Your task to perform on an android device: Open network settings Image 0: 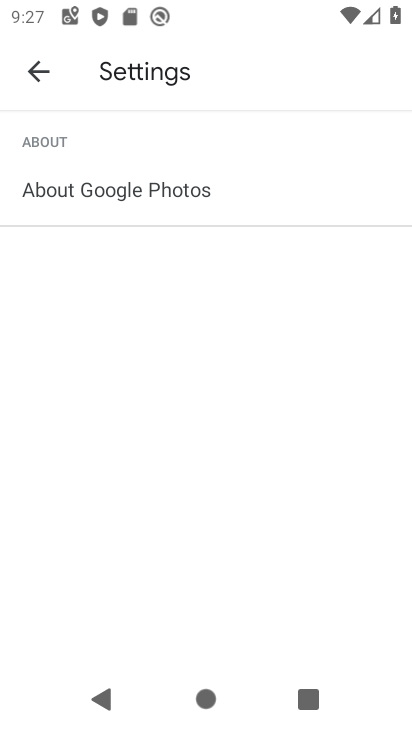
Step 0: press home button
Your task to perform on an android device: Open network settings Image 1: 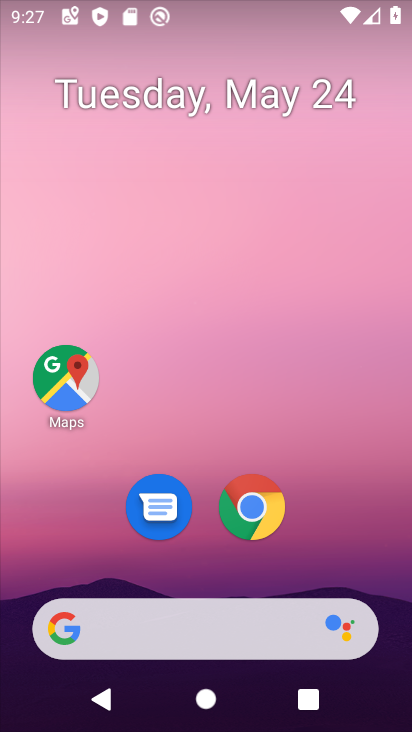
Step 1: drag from (60, 565) to (184, 145)
Your task to perform on an android device: Open network settings Image 2: 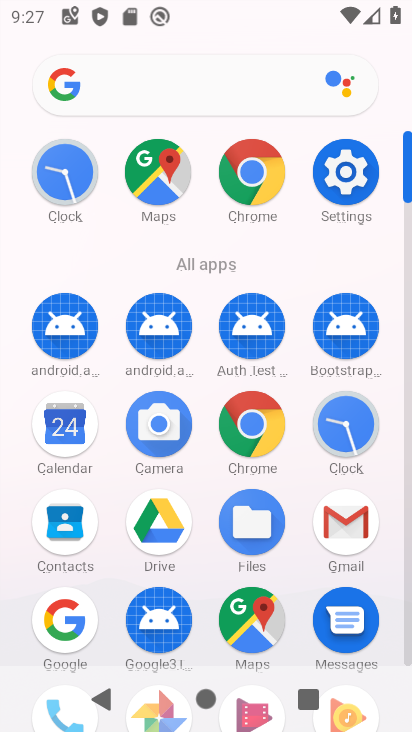
Step 2: drag from (148, 578) to (260, 288)
Your task to perform on an android device: Open network settings Image 3: 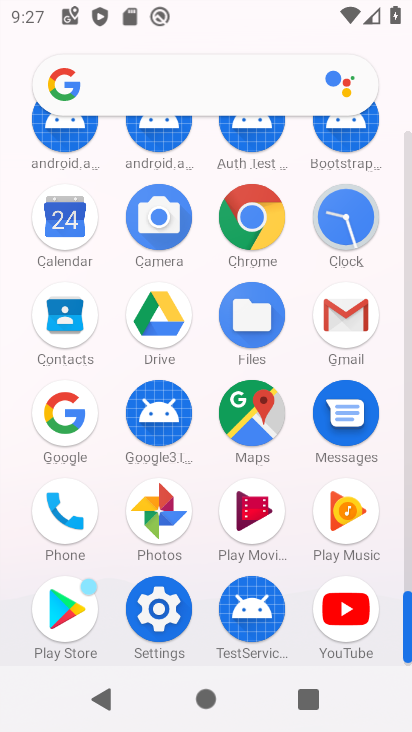
Step 3: click (168, 620)
Your task to perform on an android device: Open network settings Image 4: 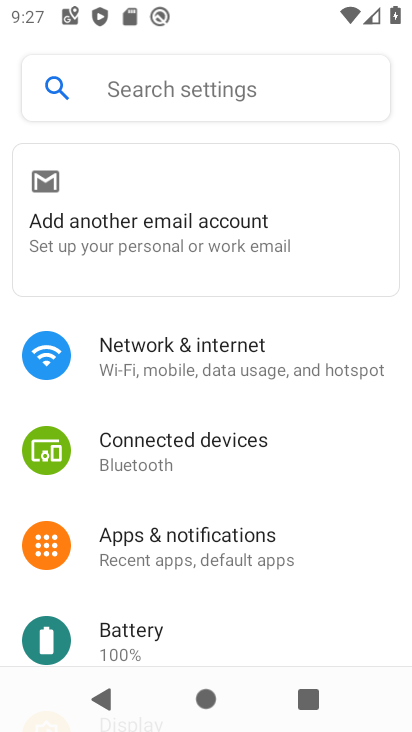
Step 4: click (249, 379)
Your task to perform on an android device: Open network settings Image 5: 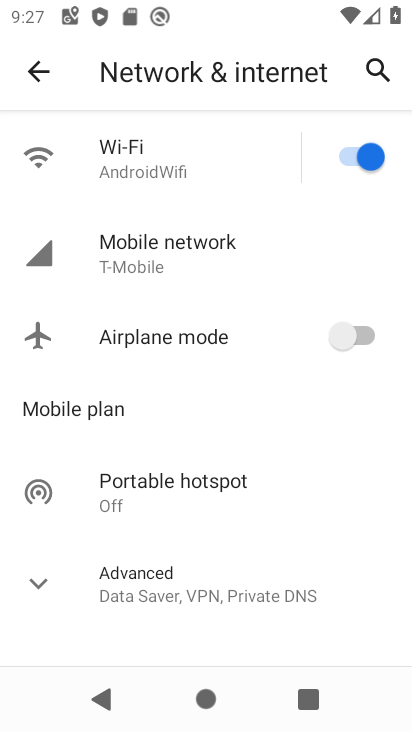
Step 5: click (239, 256)
Your task to perform on an android device: Open network settings Image 6: 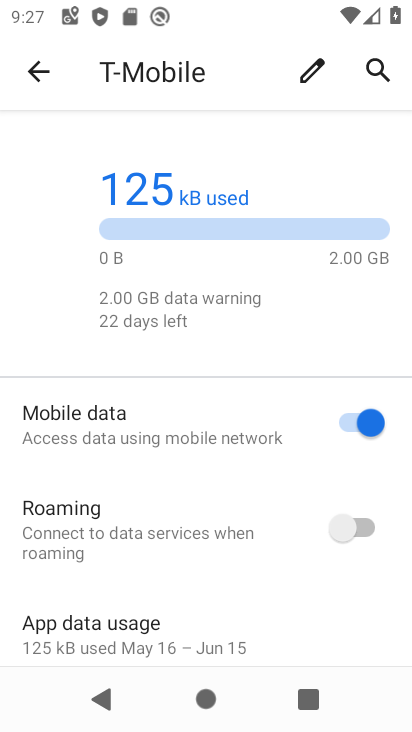
Step 6: task complete